Your task to perform on an android device: Is it going to rain this weekend? Image 0: 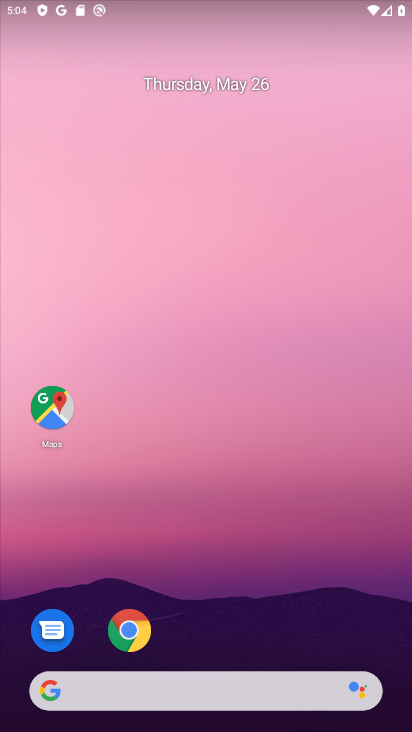
Step 0: drag from (2, 512) to (409, 425)
Your task to perform on an android device: Is it going to rain this weekend? Image 1: 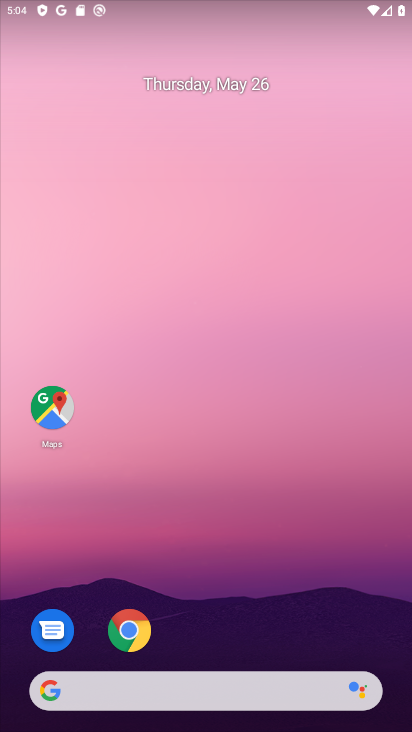
Step 1: drag from (4, 526) to (355, 462)
Your task to perform on an android device: Is it going to rain this weekend? Image 2: 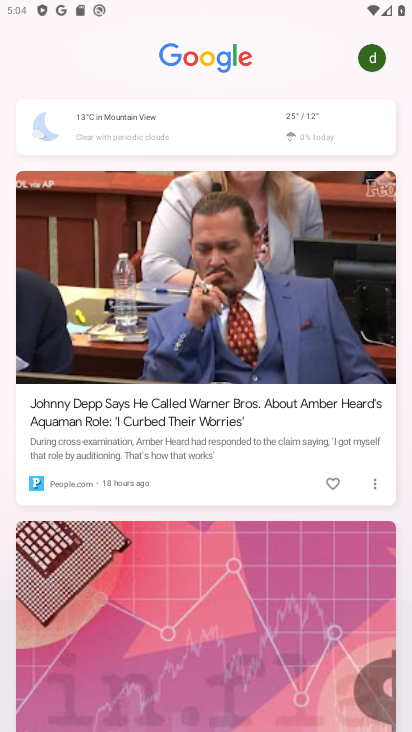
Step 2: click (325, 126)
Your task to perform on an android device: Is it going to rain this weekend? Image 3: 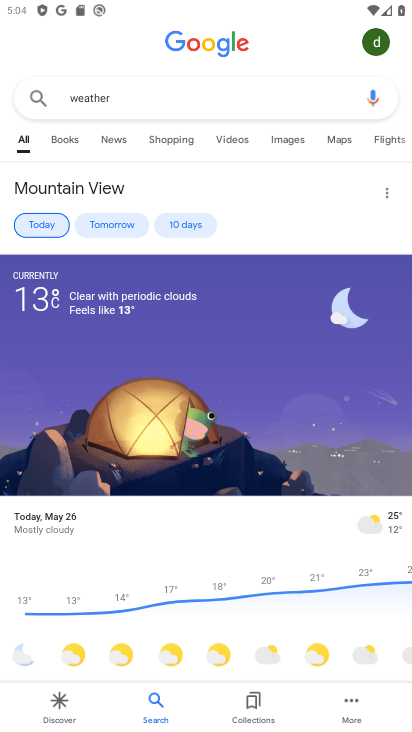
Step 3: drag from (277, 578) to (354, 271)
Your task to perform on an android device: Is it going to rain this weekend? Image 4: 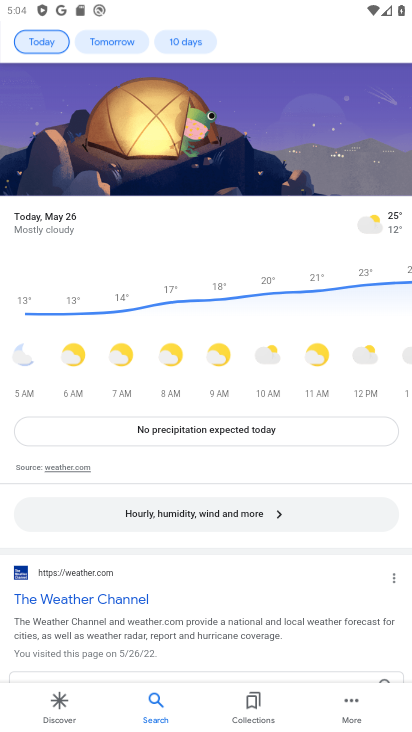
Step 4: drag from (201, 33) to (197, 391)
Your task to perform on an android device: Is it going to rain this weekend? Image 5: 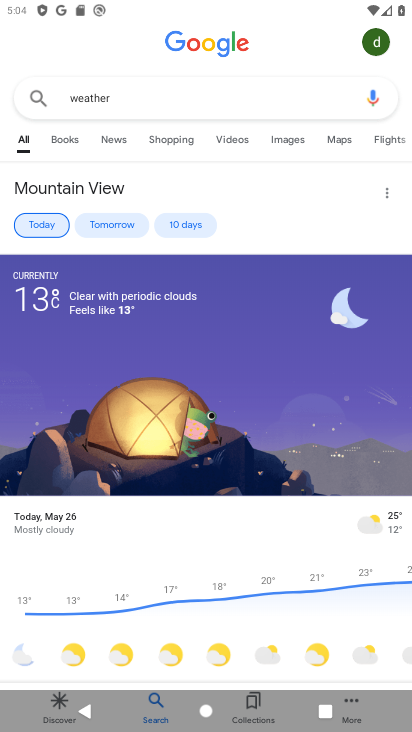
Step 5: click (267, 348)
Your task to perform on an android device: Is it going to rain this weekend? Image 6: 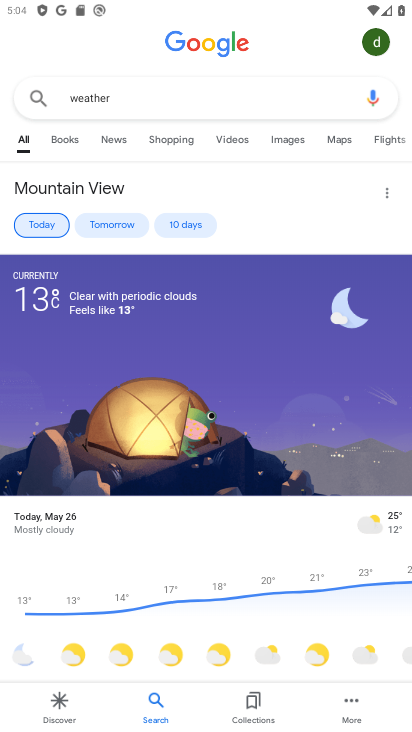
Step 6: click (253, 380)
Your task to perform on an android device: Is it going to rain this weekend? Image 7: 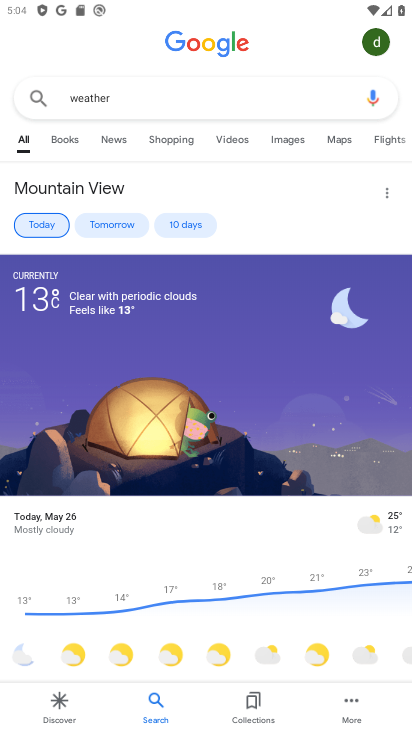
Step 7: click (380, 502)
Your task to perform on an android device: Is it going to rain this weekend? Image 8: 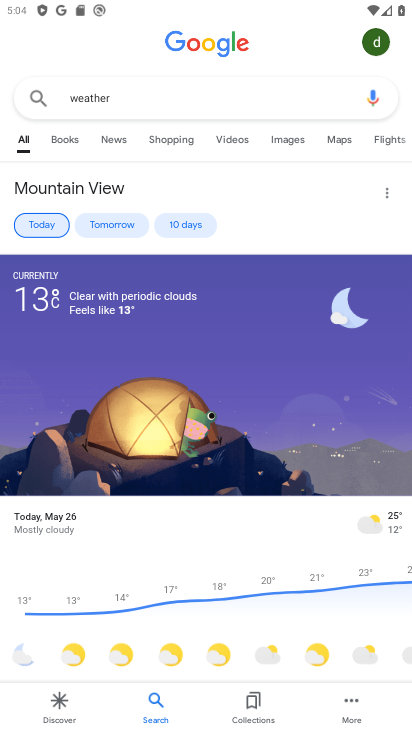
Step 8: click (186, 214)
Your task to perform on an android device: Is it going to rain this weekend? Image 9: 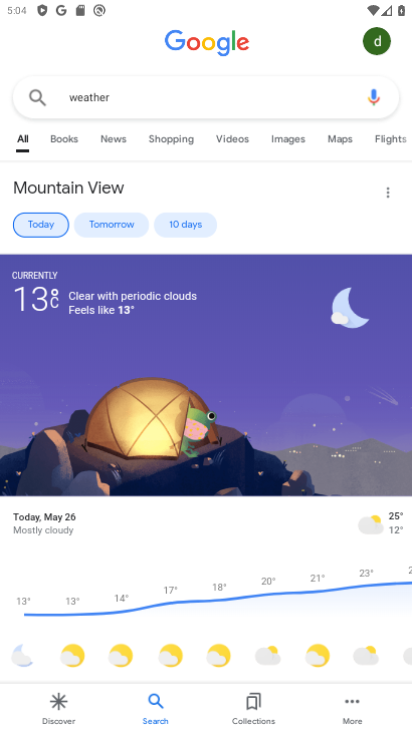
Step 9: click (192, 222)
Your task to perform on an android device: Is it going to rain this weekend? Image 10: 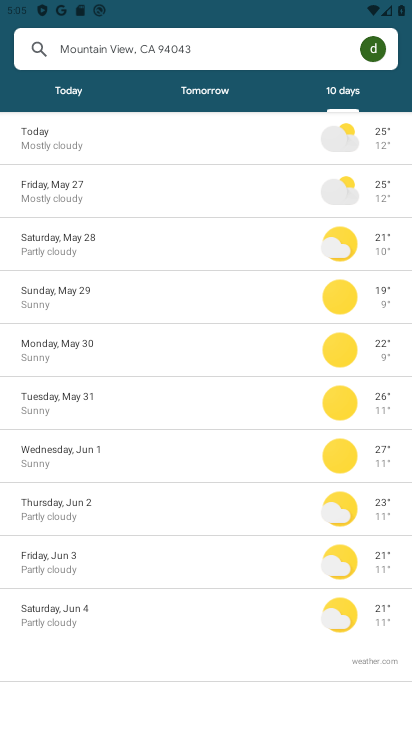
Step 10: task complete